Your task to perform on an android device: What's the weather? Image 0: 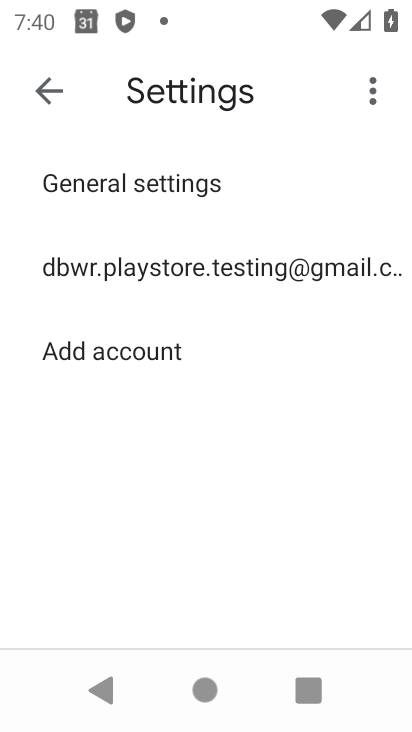
Step 0: press home button
Your task to perform on an android device: What's the weather? Image 1: 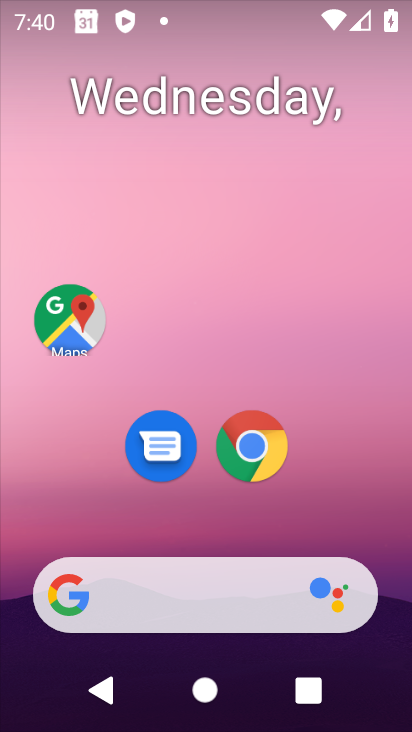
Step 1: drag from (359, 527) to (312, 64)
Your task to perform on an android device: What's the weather? Image 2: 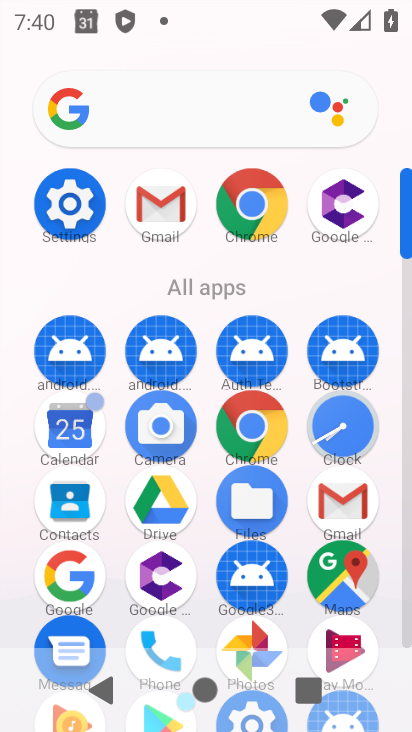
Step 2: click (88, 108)
Your task to perform on an android device: What's the weather? Image 3: 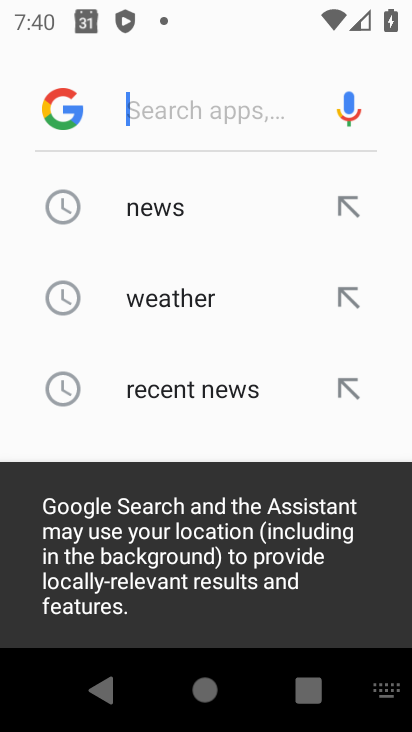
Step 3: click (88, 108)
Your task to perform on an android device: What's the weather? Image 4: 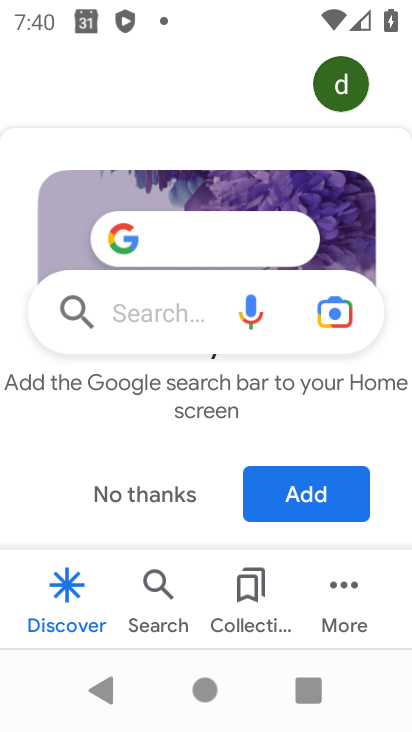
Step 4: drag from (139, 493) to (173, 212)
Your task to perform on an android device: What's the weather? Image 5: 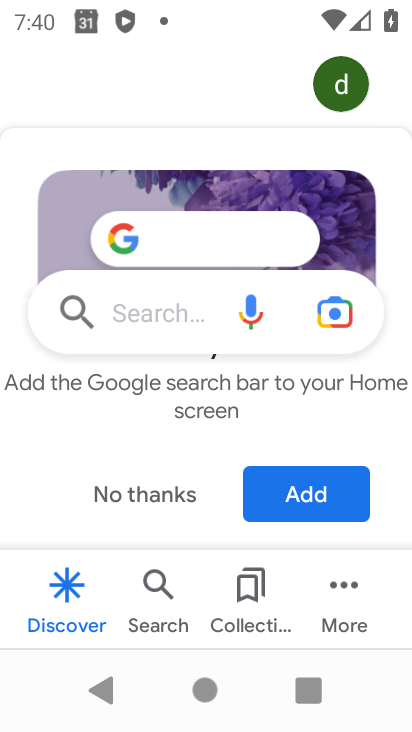
Step 5: drag from (290, 467) to (332, 271)
Your task to perform on an android device: What's the weather? Image 6: 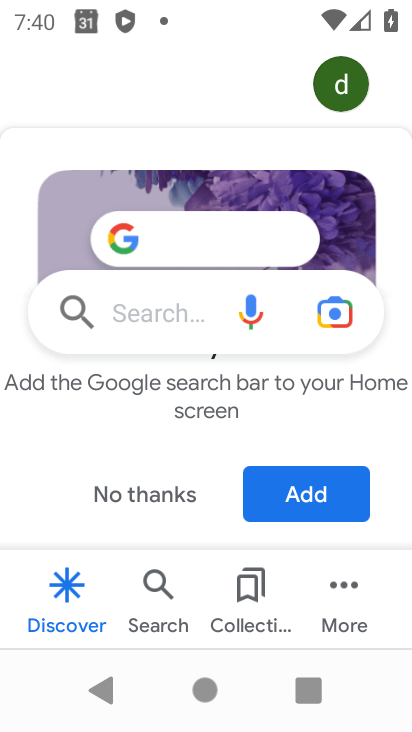
Step 6: click (180, 496)
Your task to perform on an android device: What's the weather? Image 7: 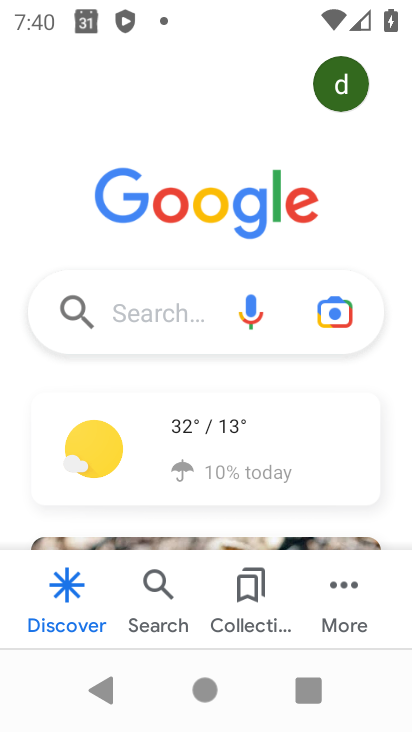
Step 7: click (194, 455)
Your task to perform on an android device: What's the weather? Image 8: 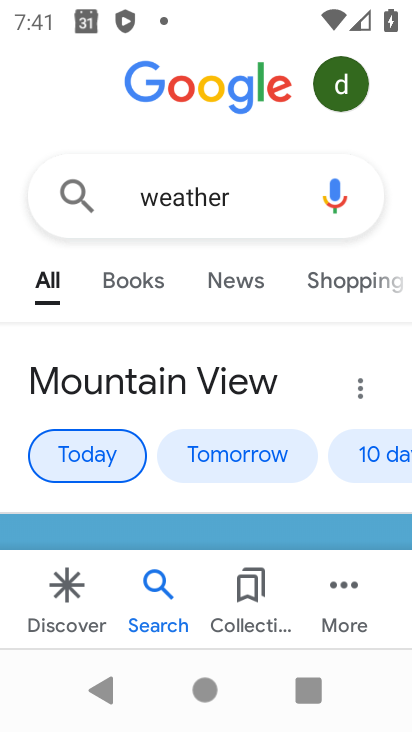
Step 8: task complete